Your task to perform on an android device: Go to Yahoo.com Image 0: 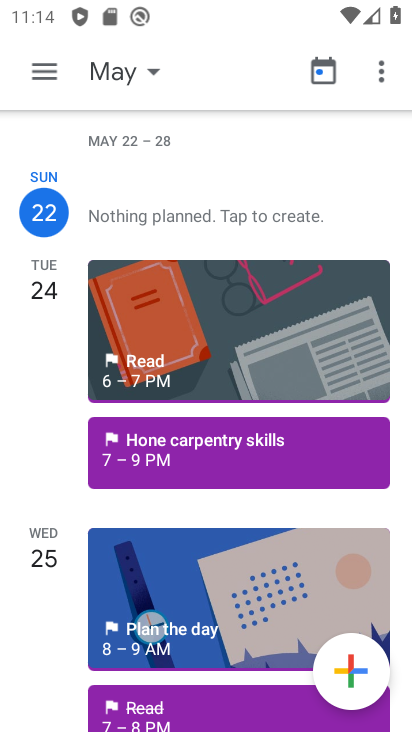
Step 0: press home button
Your task to perform on an android device: Go to Yahoo.com Image 1: 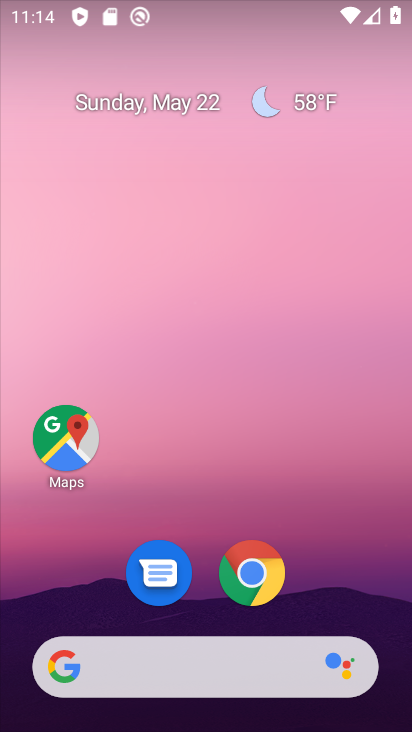
Step 1: drag from (366, 581) to (371, 344)
Your task to perform on an android device: Go to Yahoo.com Image 2: 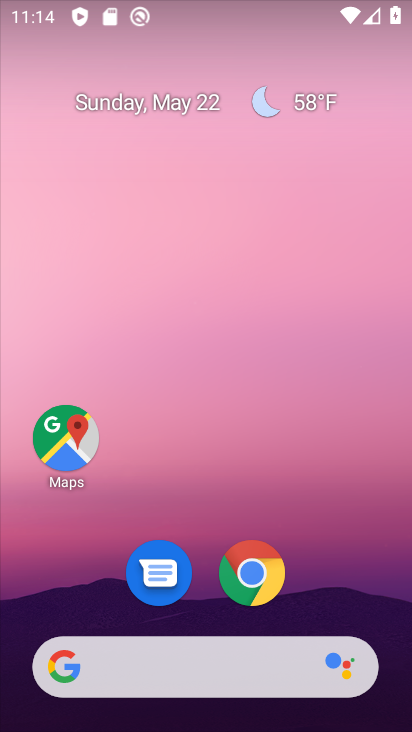
Step 2: drag from (337, 544) to (330, 38)
Your task to perform on an android device: Go to Yahoo.com Image 3: 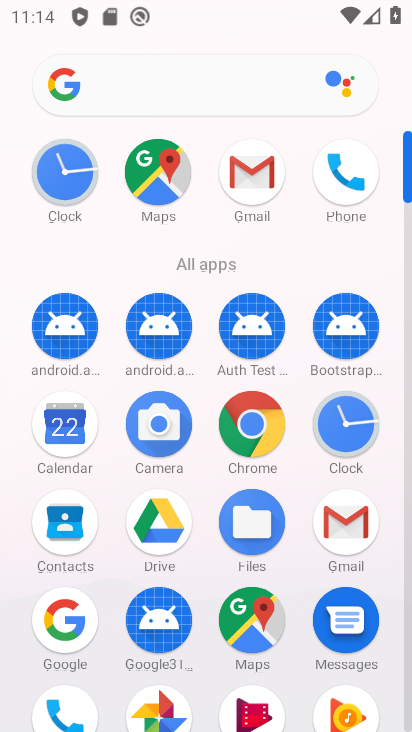
Step 3: click (270, 424)
Your task to perform on an android device: Go to Yahoo.com Image 4: 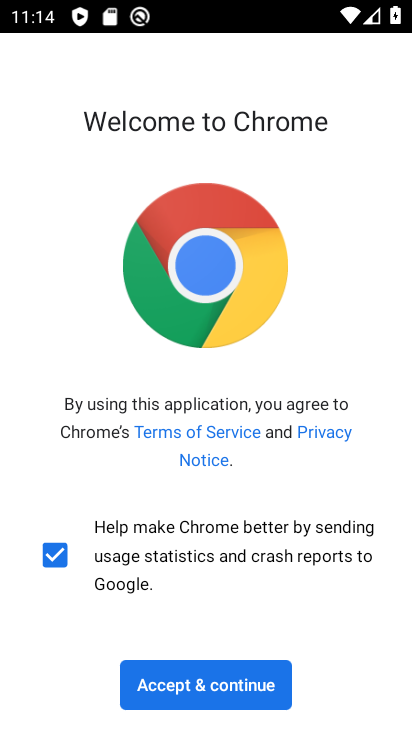
Step 4: click (236, 666)
Your task to perform on an android device: Go to Yahoo.com Image 5: 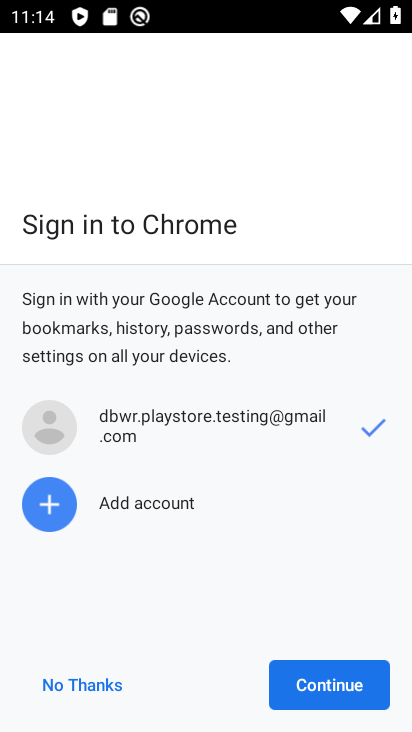
Step 5: click (317, 685)
Your task to perform on an android device: Go to Yahoo.com Image 6: 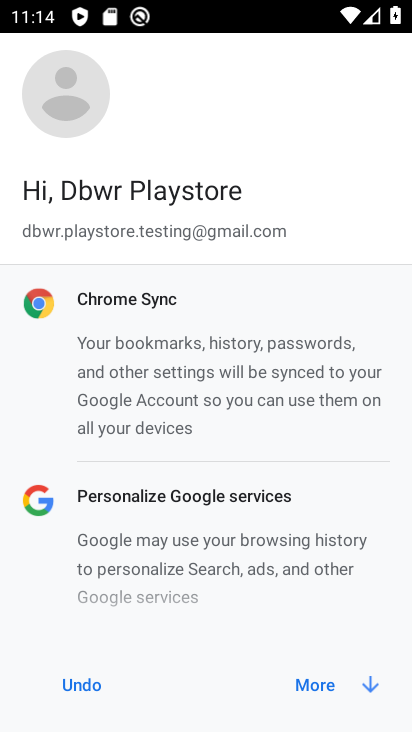
Step 6: click (326, 682)
Your task to perform on an android device: Go to Yahoo.com Image 7: 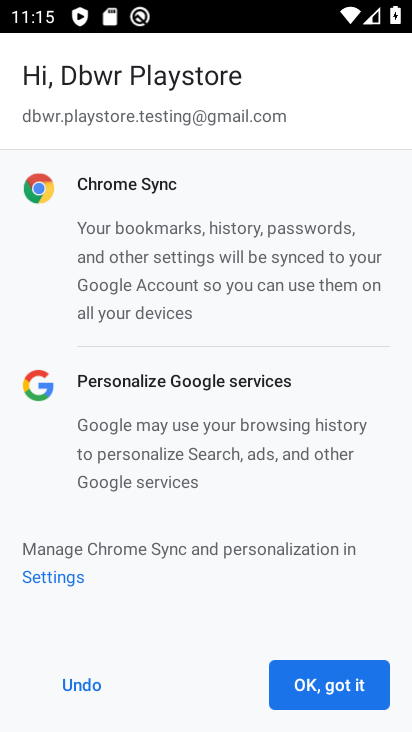
Step 7: click (340, 681)
Your task to perform on an android device: Go to Yahoo.com Image 8: 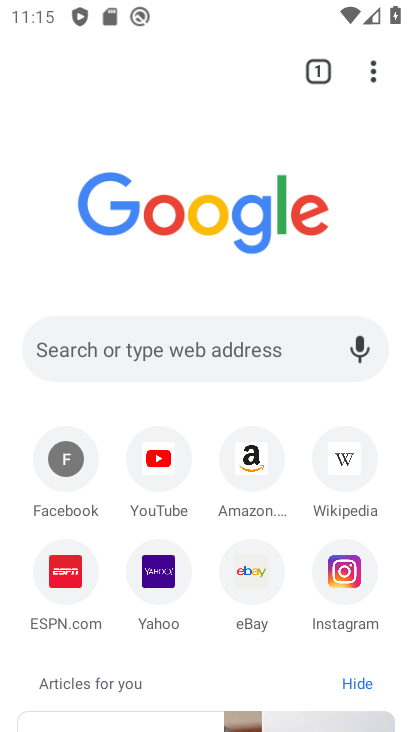
Step 8: click (164, 576)
Your task to perform on an android device: Go to Yahoo.com Image 9: 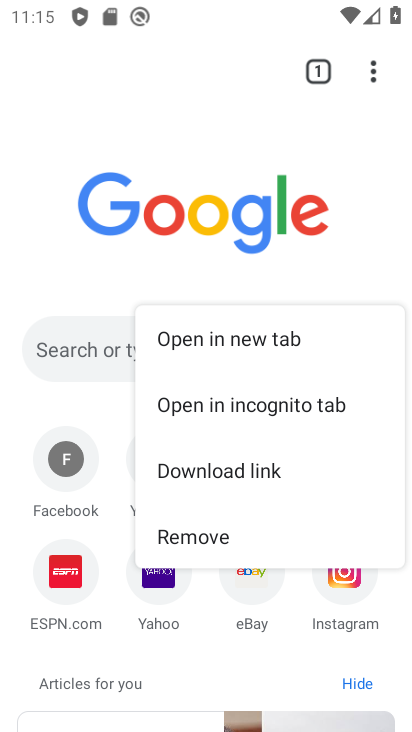
Step 9: click (155, 590)
Your task to perform on an android device: Go to Yahoo.com Image 10: 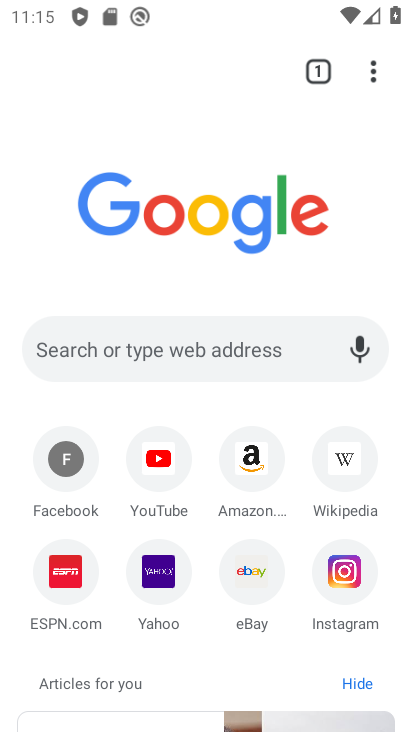
Step 10: click (159, 584)
Your task to perform on an android device: Go to Yahoo.com Image 11: 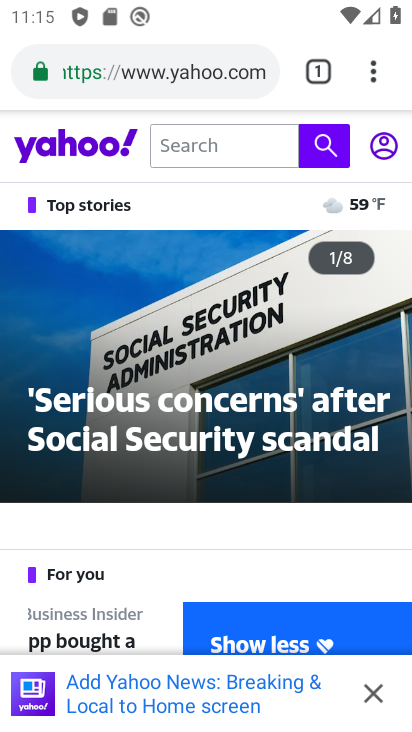
Step 11: task complete